Your task to perform on an android device: Open calendar and show me the first week of next month Image 0: 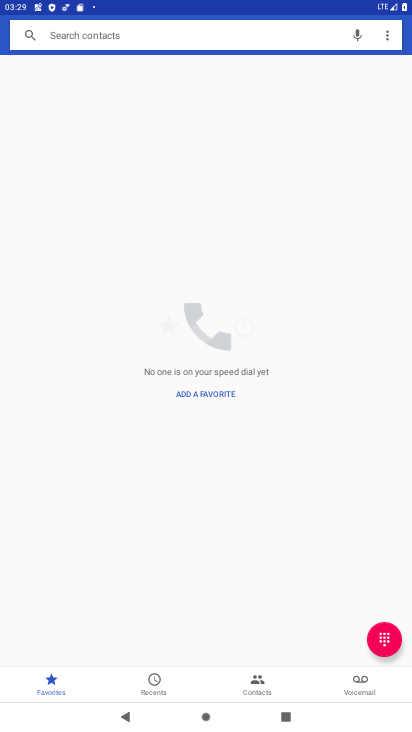
Step 0: press home button
Your task to perform on an android device: Open calendar and show me the first week of next month Image 1: 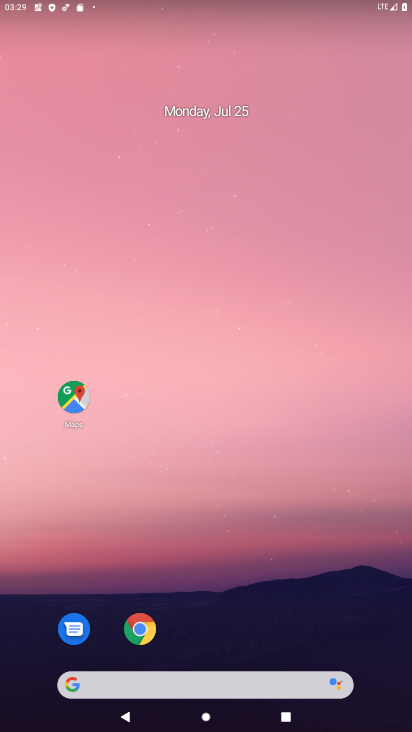
Step 1: drag from (243, 674) to (234, 1)
Your task to perform on an android device: Open calendar and show me the first week of next month Image 2: 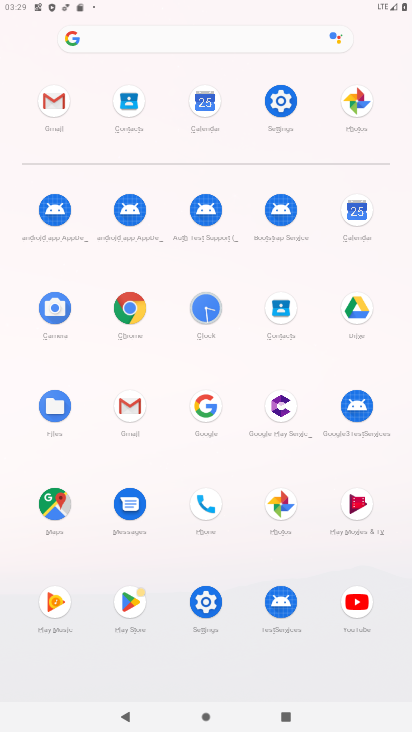
Step 2: click (194, 105)
Your task to perform on an android device: Open calendar and show me the first week of next month Image 3: 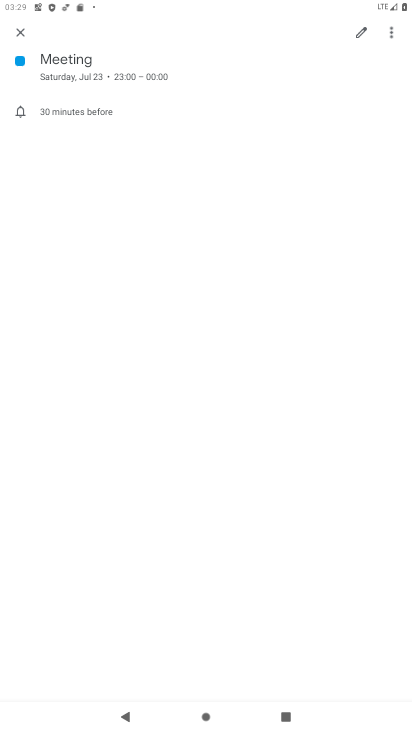
Step 3: click (18, 30)
Your task to perform on an android device: Open calendar and show me the first week of next month Image 4: 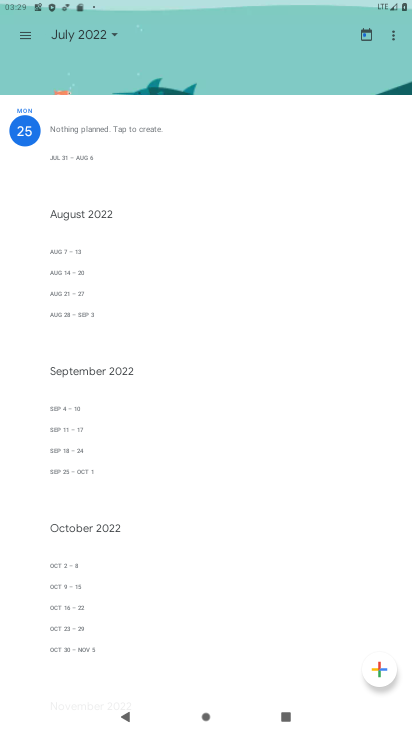
Step 4: click (360, 31)
Your task to perform on an android device: Open calendar and show me the first week of next month Image 5: 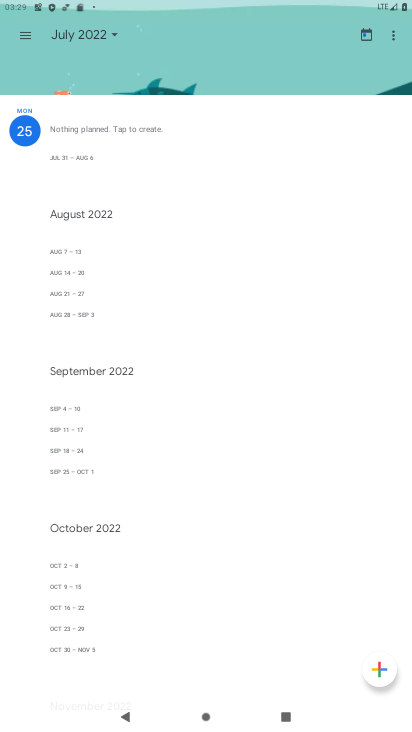
Step 5: click (371, 35)
Your task to perform on an android device: Open calendar and show me the first week of next month Image 6: 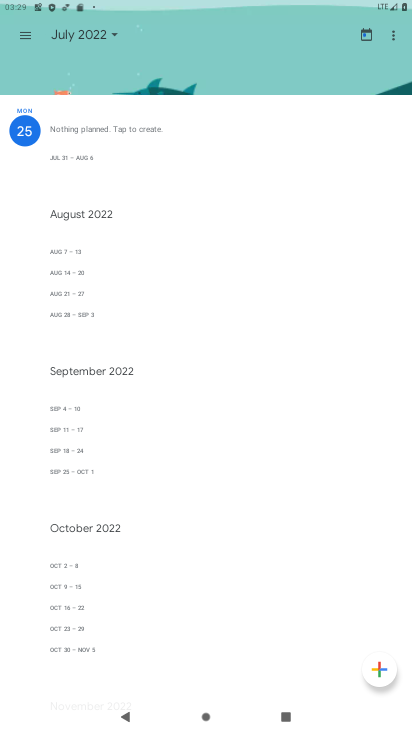
Step 6: click (110, 39)
Your task to perform on an android device: Open calendar and show me the first week of next month Image 7: 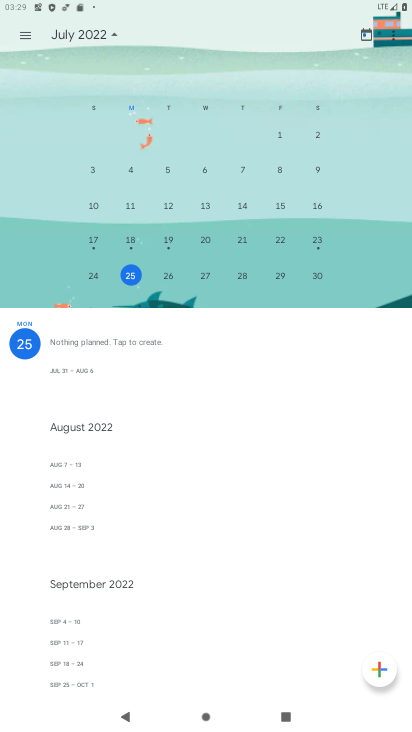
Step 7: drag from (361, 225) to (0, 75)
Your task to perform on an android device: Open calendar and show me the first week of next month Image 8: 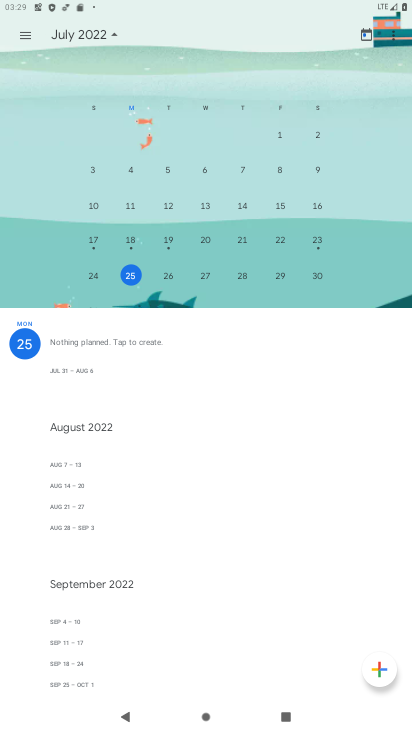
Step 8: click (25, 36)
Your task to perform on an android device: Open calendar and show me the first week of next month Image 9: 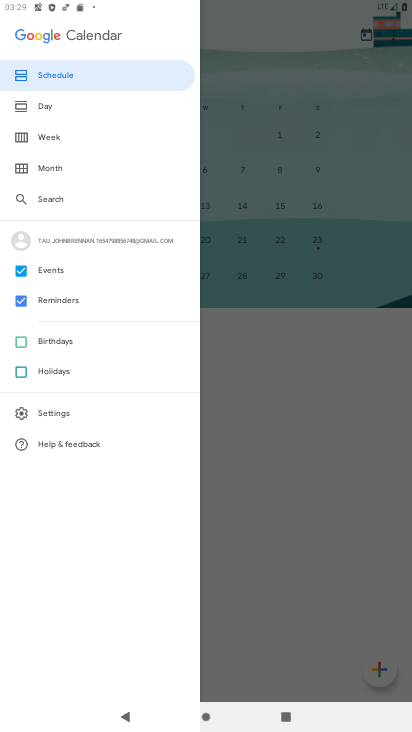
Step 9: click (40, 132)
Your task to perform on an android device: Open calendar and show me the first week of next month Image 10: 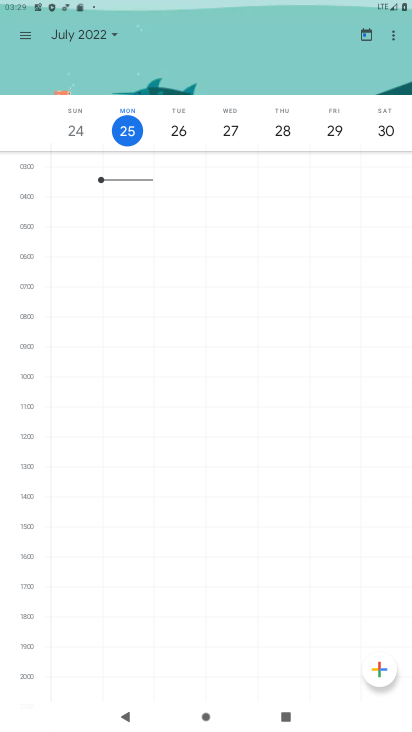
Step 10: task complete